Your task to perform on an android device: make emails show in primary in the gmail app Image 0: 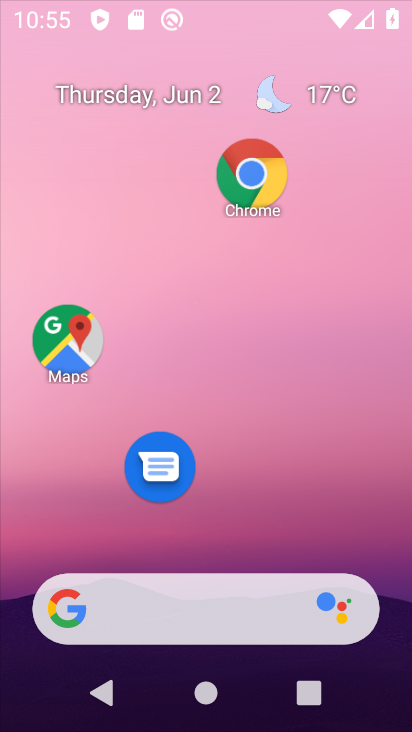
Step 0: press home button
Your task to perform on an android device: make emails show in primary in the gmail app Image 1: 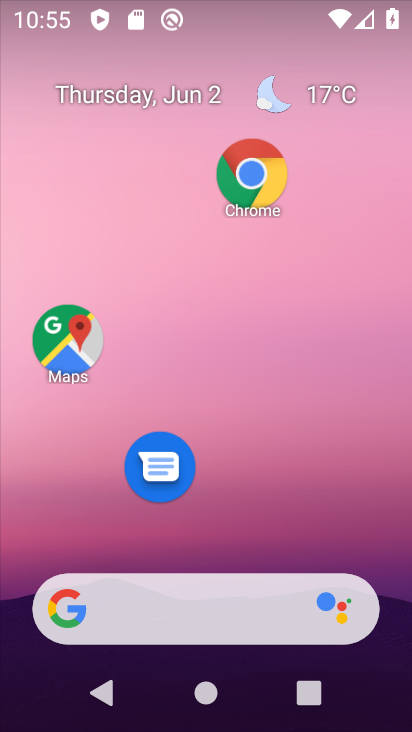
Step 1: drag from (280, 518) to (200, 118)
Your task to perform on an android device: make emails show in primary in the gmail app Image 2: 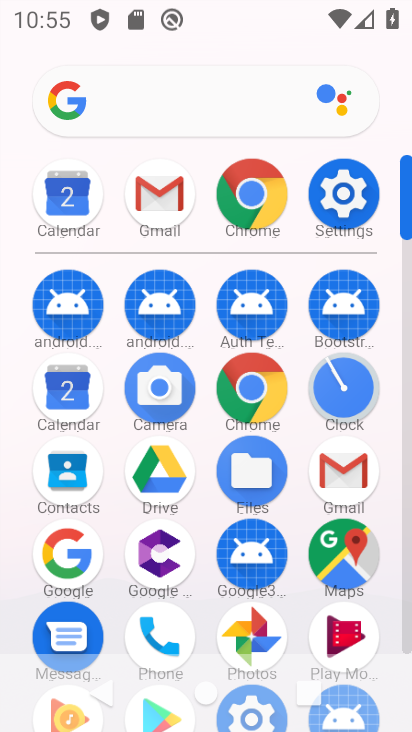
Step 2: click (155, 196)
Your task to perform on an android device: make emails show in primary in the gmail app Image 3: 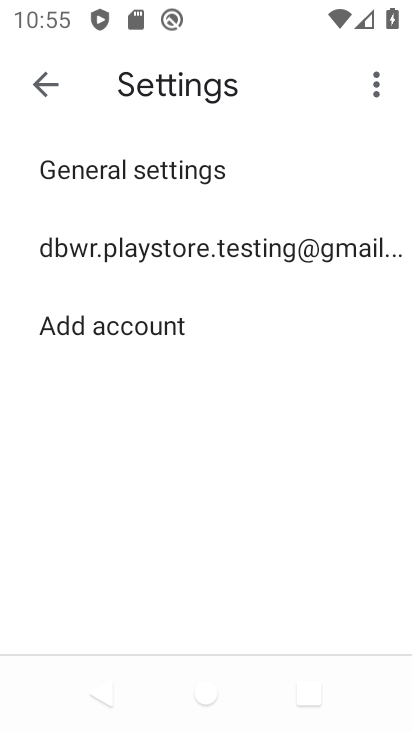
Step 3: click (172, 250)
Your task to perform on an android device: make emails show in primary in the gmail app Image 4: 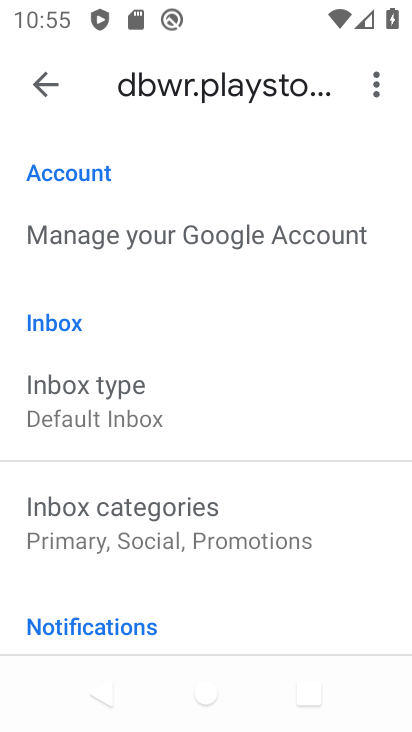
Step 4: click (123, 501)
Your task to perform on an android device: make emails show in primary in the gmail app Image 5: 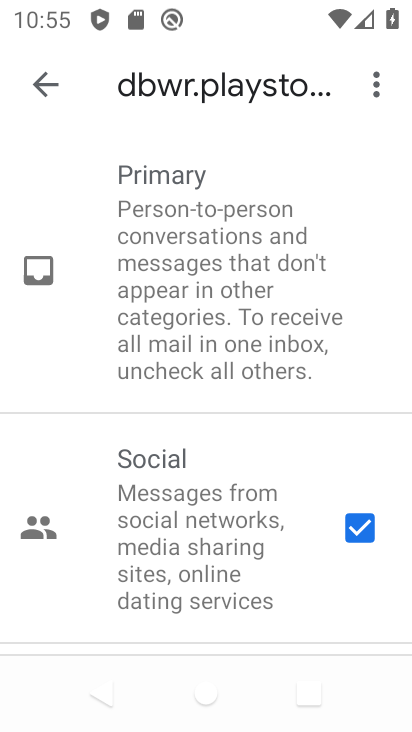
Step 5: click (356, 533)
Your task to perform on an android device: make emails show in primary in the gmail app Image 6: 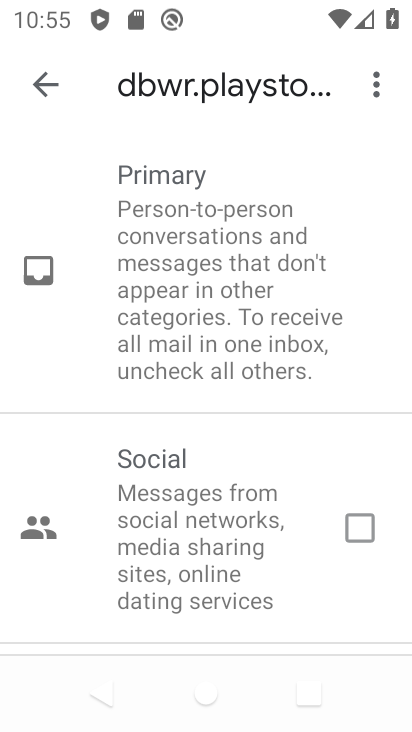
Step 6: drag from (338, 633) to (165, 72)
Your task to perform on an android device: make emails show in primary in the gmail app Image 7: 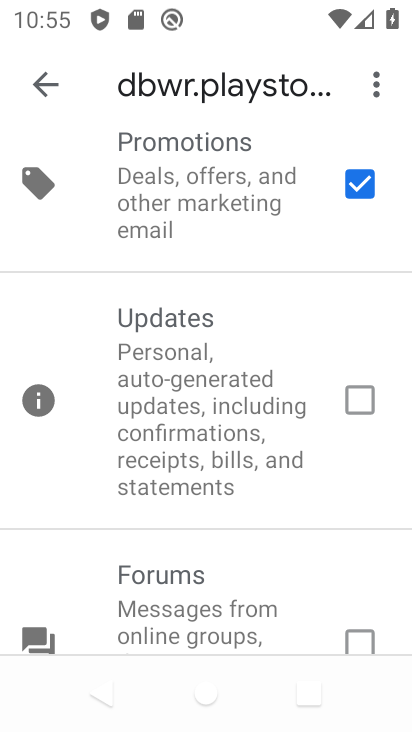
Step 7: click (351, 182)
Your task to perform on an android device: make emails show in primary in the gmail app Image 8: 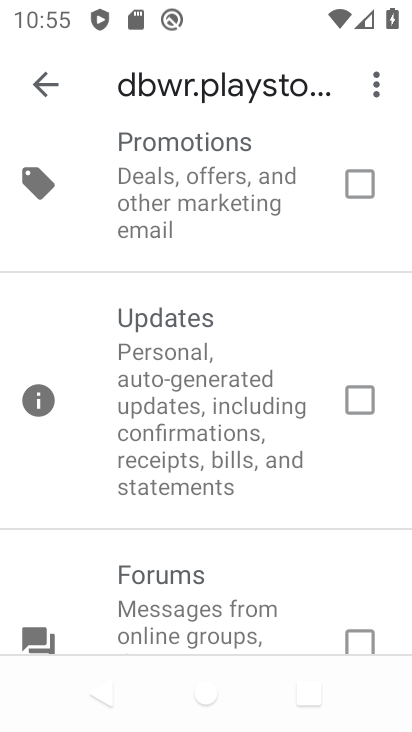
Step 8: drag from (327, 549) to (2, 83)
Your task to perform on an android device: make emails show in primary in the gmail app Image 9: 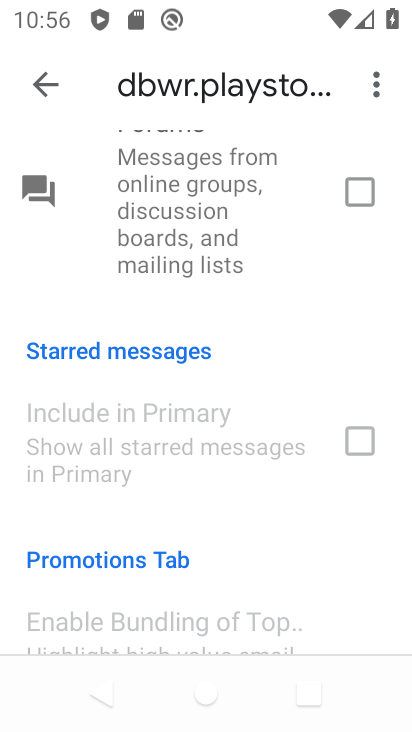
Step 9: drag from (62, 143) to (359, 271)
Your task to perform on an android device: make emails show in primary in the gmail app Image 10: 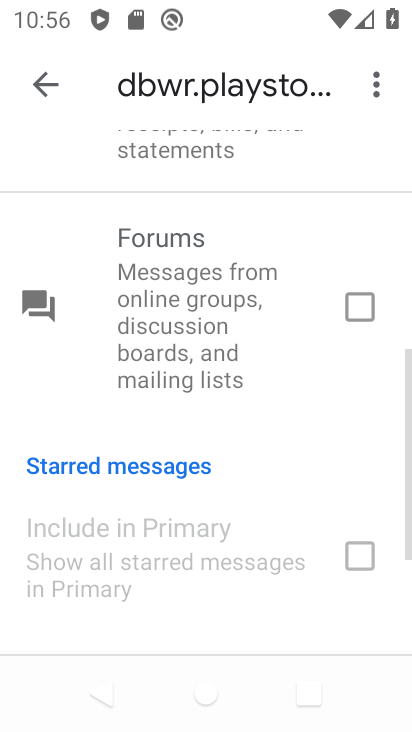
Step 10: drag from (58, 179) to (146, 682)
Your task to perform on an android device: make emails show in primary in the gmail app Image 11: 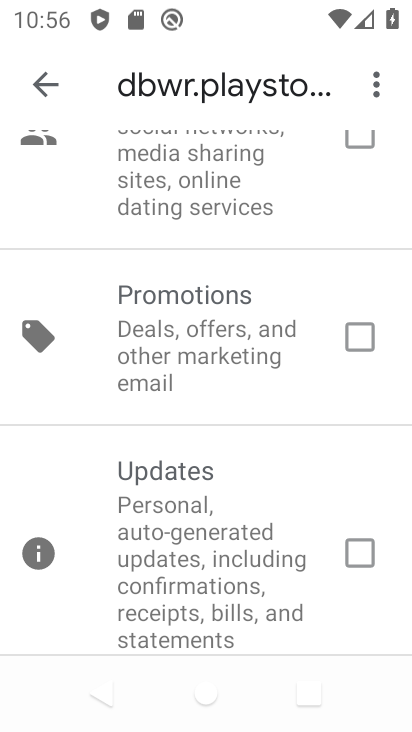
Step 11: drag from (25, 175) to (310, 592)
Your task to perform on an android device: make emails show in primary in the gmail app Image 12: 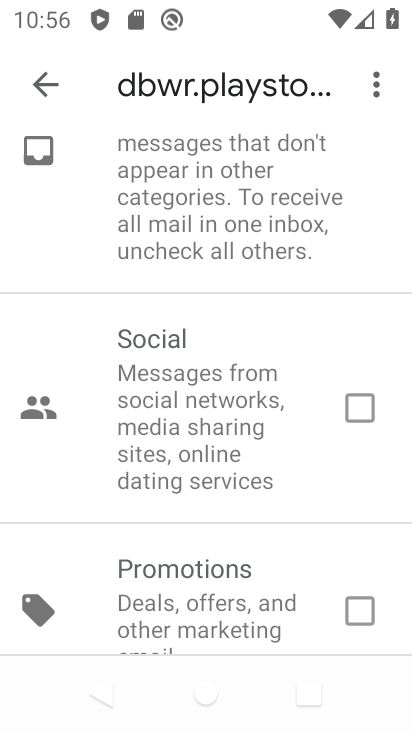
Step 12: click (32, 143)
Your task to perform on an android device: make emails show in primary in the gmail app Image 13: 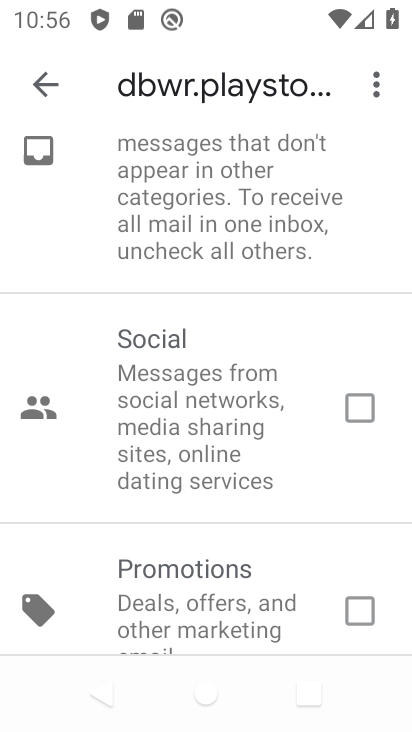
Step 13: task complete